Your task to perform on an android device: Go to battery settings Image 0: 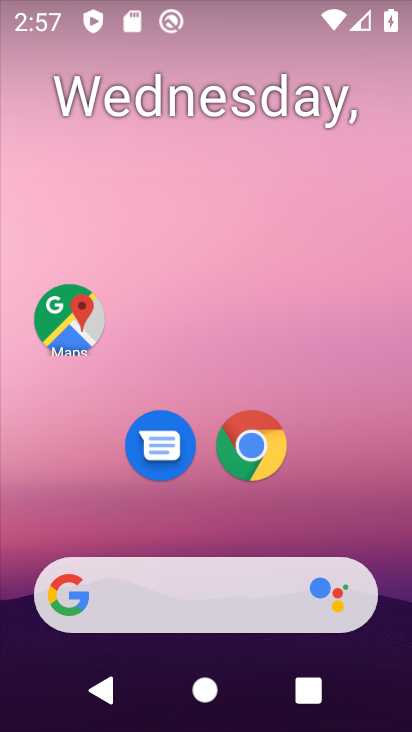
Step 0: drag from (194, 448) to (282, 52)
Your task to perform on an android device: Go to battery settings Image 1: 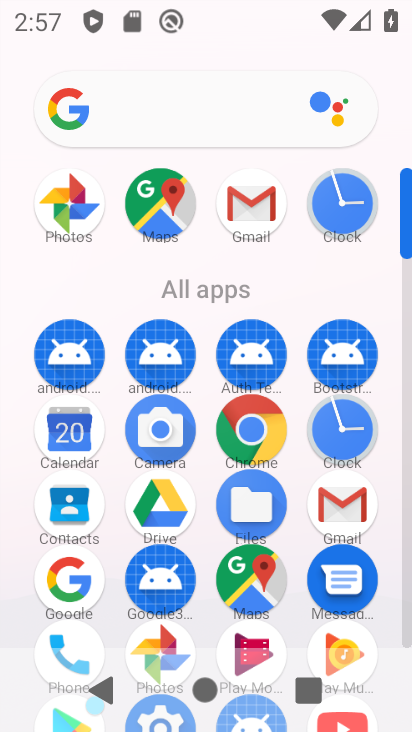
Step 1: drag from (200, 620) to (276, 368)
Your task to perform on an android device: Go to battery settings Image 2: 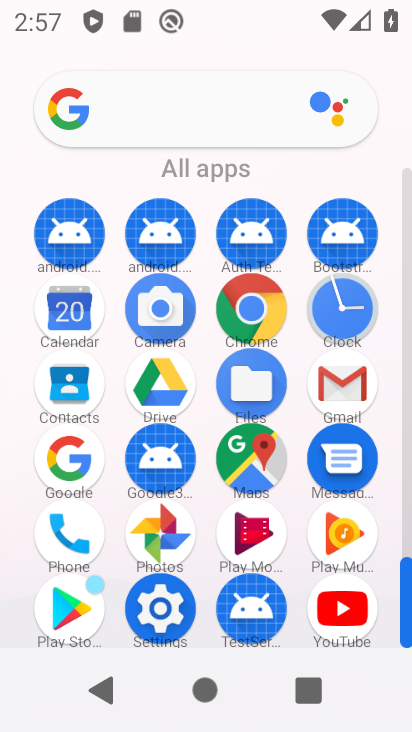
Step 2: click (160, 610)
Your task to perform on an android device: Go to battery settings Image 3: 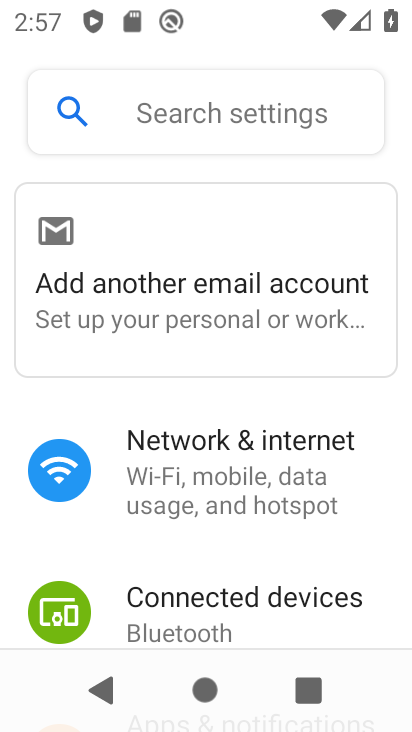
Step 3: drag from (175, 595) to (371, 215)
Your task to perform on an android device: Go to battery settings Image 4: 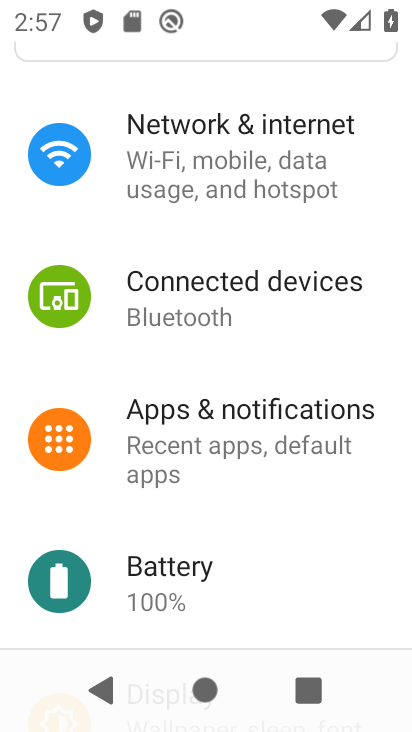
Step 4: click (238, 586)
Your task to perform on an android device: Go to battery settings Image 5: 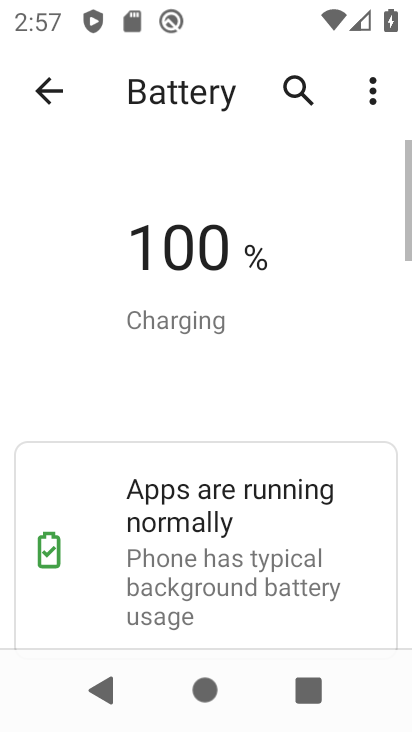
Step 5: task complete